Your task to perform on an android device: toggle priority inbox in the gmail app Image 0: 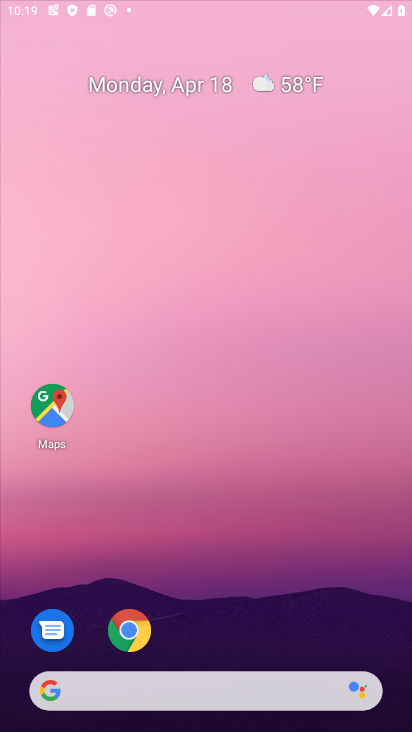
Step 0: drag from (221, 17) to (273, 501)
Your task to perform on an android device: toggle priority inbox in the gmail app Image 1: 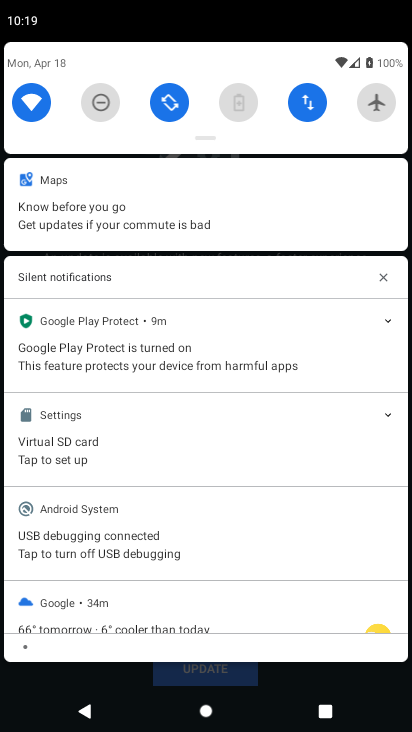
Step 1: press home button
Your task to perform on an android device: toggle priority inbox in the gmail app Image 2: 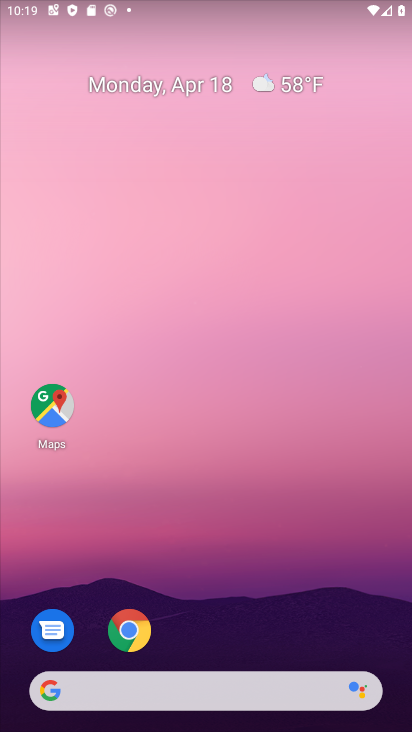
Step 2: drag from (260, 610) to (231, 30)
Your task to perform on an android device: toggle priority inbox in the gmail app Image 3: 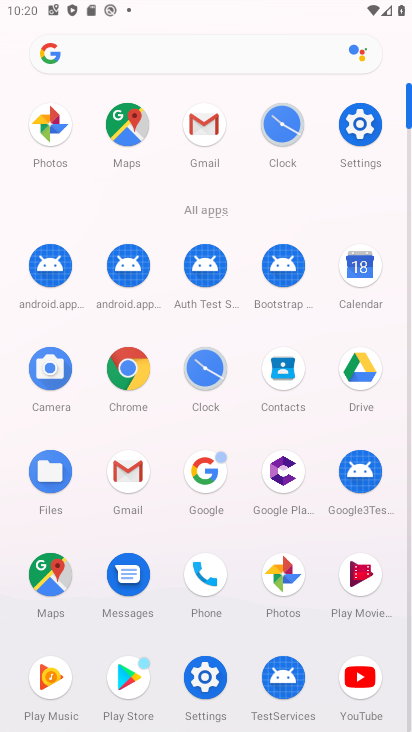
Step 3: click (124, 489)
Your task to perform on an android device: toggle priority inbox in the gmail app Image 4: 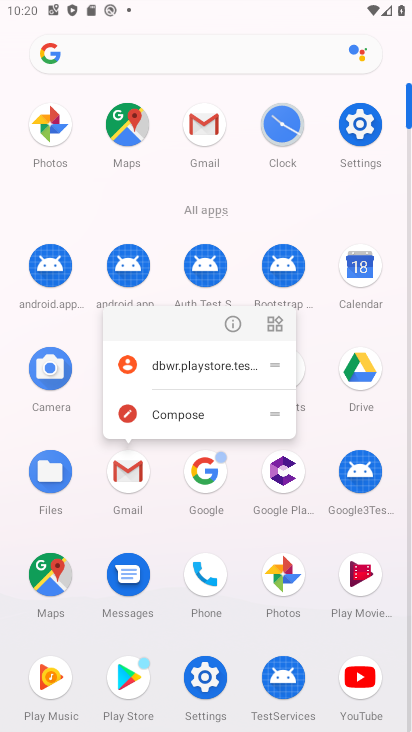
Step 4: click (126, 480)
Your task to perform on an android device: toggle priority inbox in the gmail app Image 5: 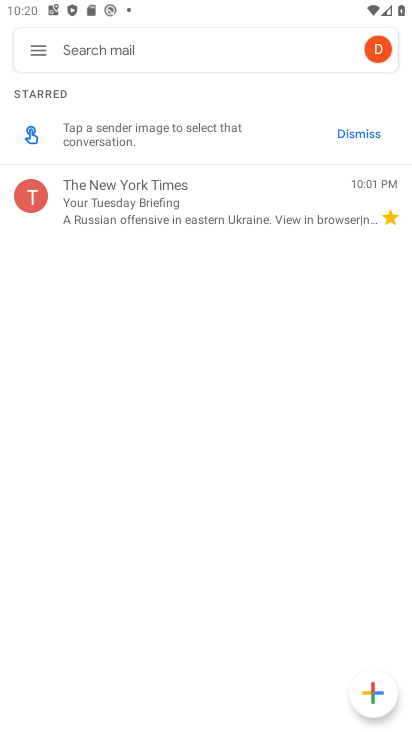
Step 5: click (42, 57)
Your task to perform on an android device: toggle priority inbox in the gmail app Image 6: 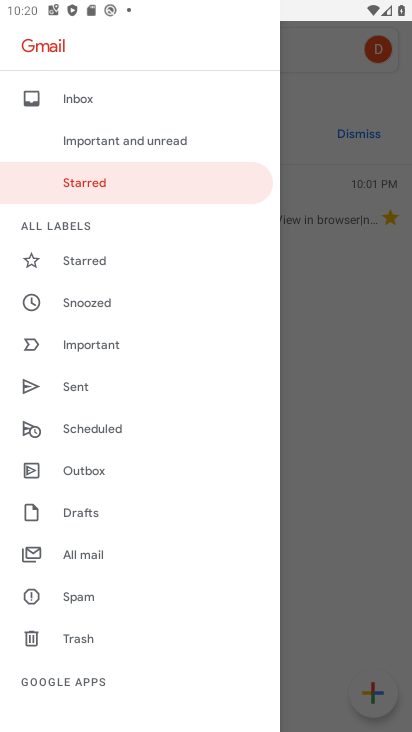
Step 6: drag from (89, 698) to (93, 338)
Your task to perform on an android device: toggle priority inbox in the gmail app Image 7: 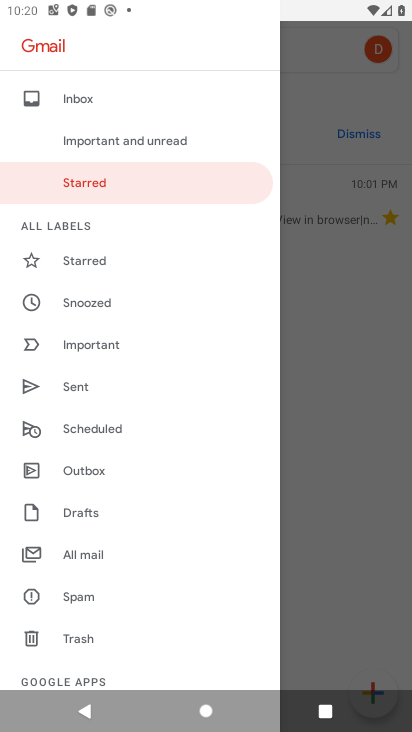
Step 7: drag from (107, 627) to (124, 169)
Your task to perform on an android device: toggle priority inbox in the gmail app Image 8: 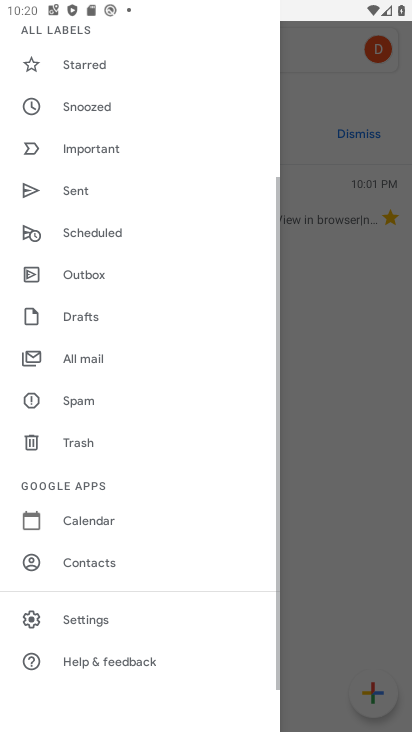
Step 8: click (96, 614)
Your task to perform on an android device: toggle priority inbox in the gmail app Image 9: 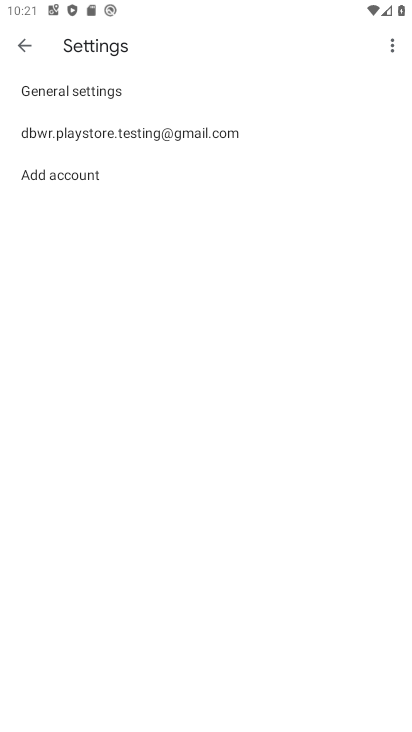
Step 9: click (110, 135)
Your task to perform on an android device: toggle priority inbox in the gmail app Image 10: 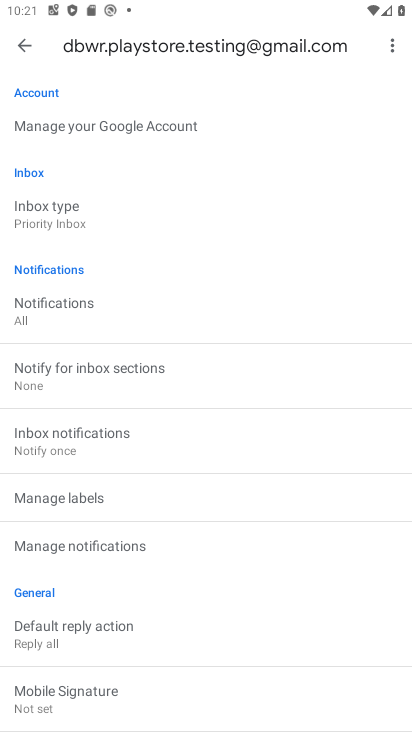
Step 10: click (51, 208)
Your task to perform on an android device: toggle priority inbox in the gmail app Image 11: 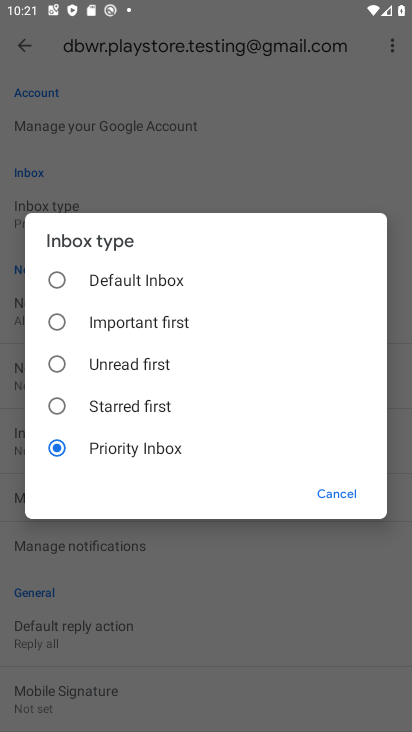
Step 11: click (105, 277)
Your task to perform on an android device: toggle priority inbox in the gmail app Image 12: 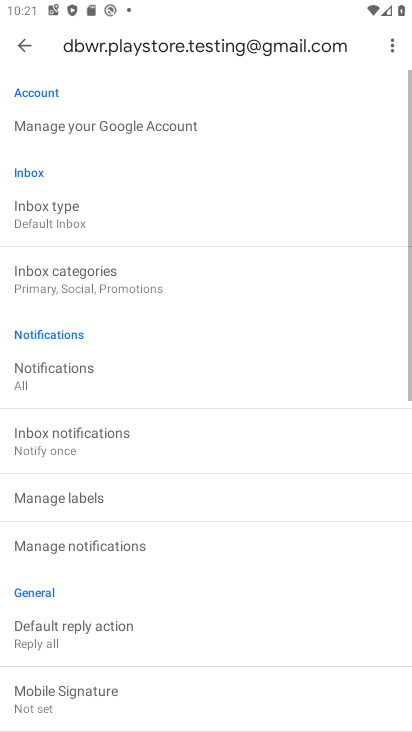
Step 12: task complete